Your task to perform on an android device: Open ESPN.com Image 0: 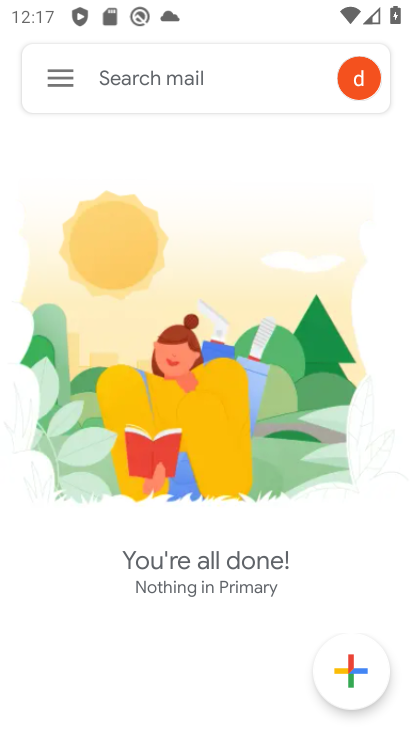
Step 0: press home button
Your task to perform on an android device: Open ESPN.com Image 1: 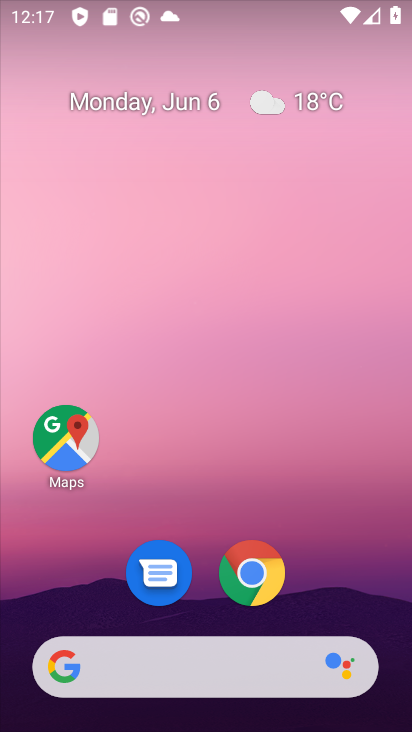
Step 1: click (254, 569)
Your task to perform on an android device: Open ESPN.com Image 2: 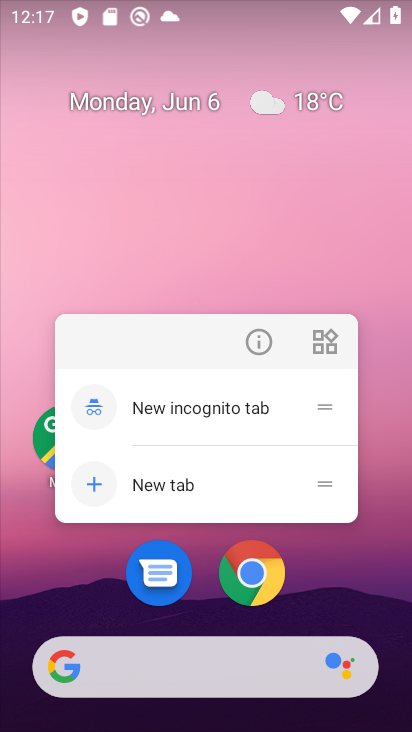
Step 2: click (275, 567)
Your task to perform on an android device: Open ESPN.com Image 3: 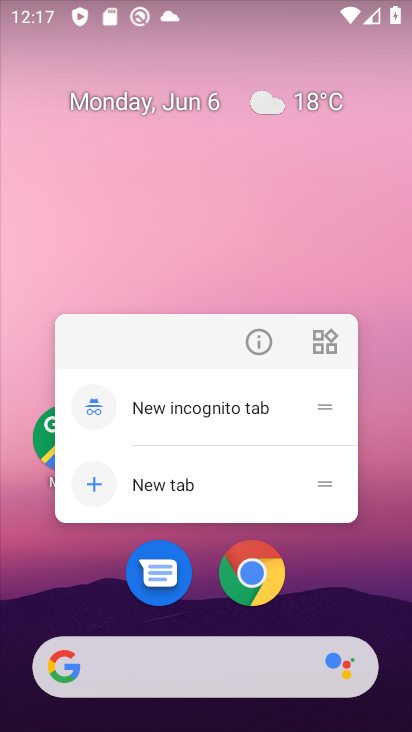
Step 3: click (273, 574)
Your task to perform on an android device: Open ESPN.com Image 4: 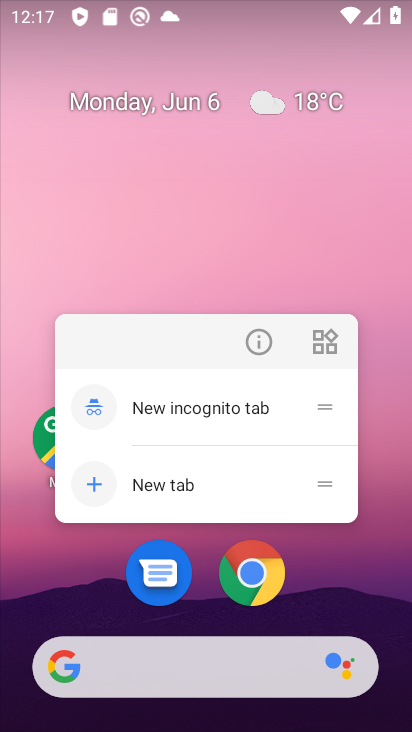
Step 4: click (249, 571)
Your task to perform on an android device: Open ESPN.com Image 5: 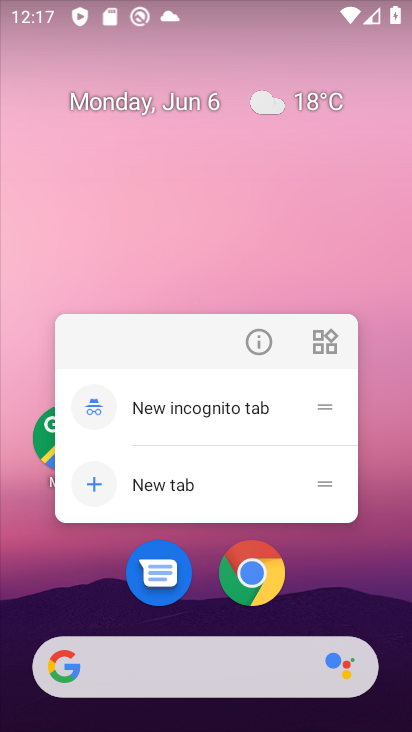
Step 5: click (254, 573)
Your task to perform on an android device: Open ESPN.com Image 6: 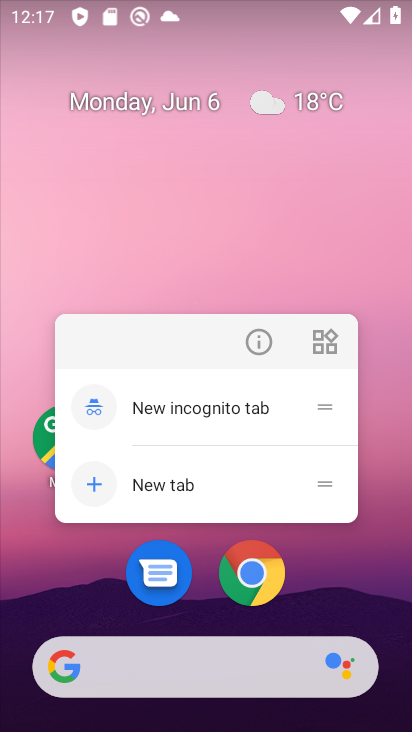
Step 6: click (262, 579)
Your task to perform on an android device: Open ESPN.com Image 7: 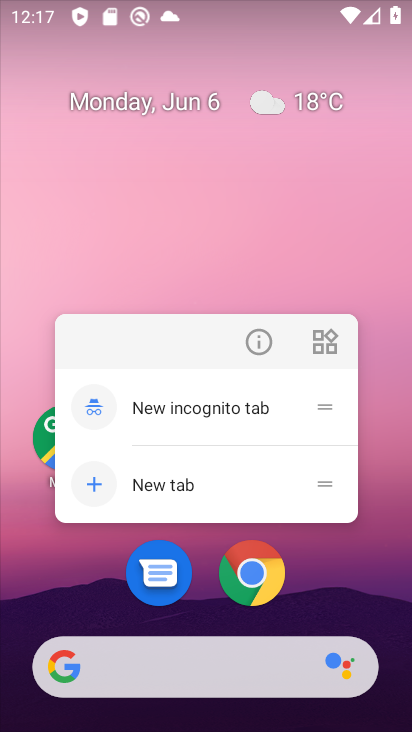
Step 7: click (255, 572)
Your task to perform on an android device: Open ESPN.com Image 8: 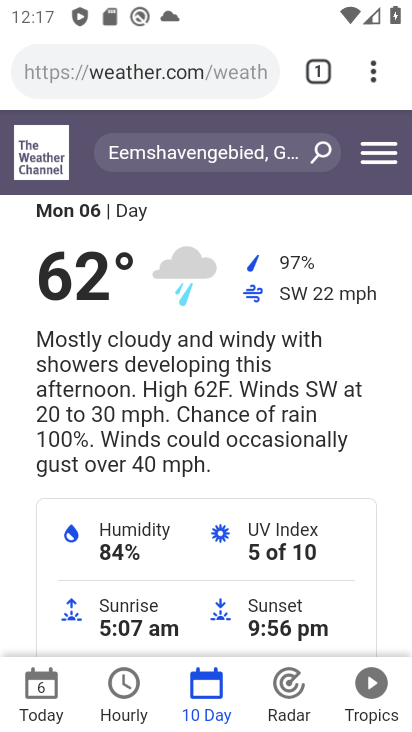
Step 8: drag from (387, 62) to (294, 144)
Your task to perform on an android device: Open ESPN.com Image 9: 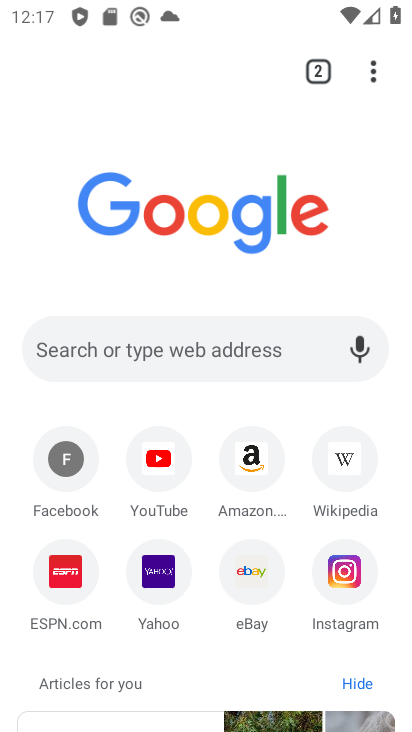
Step 9: click (74, 591)
Your task to perform on an android device: Open ESPN.com Image 10: 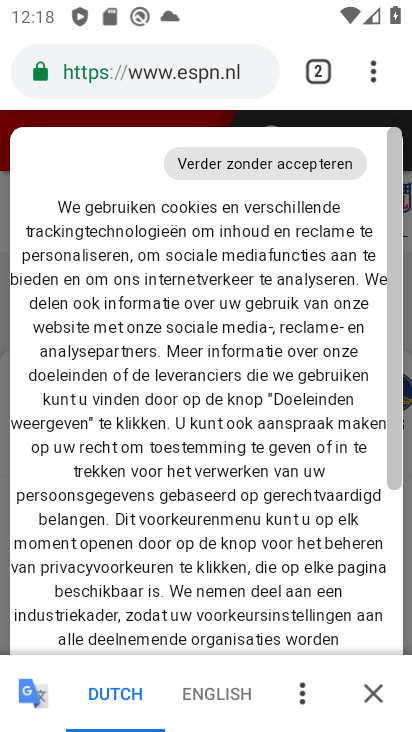
Step 10: task complete